Your task to perform on an android device: refresh tabs in the chrome app Image 0: 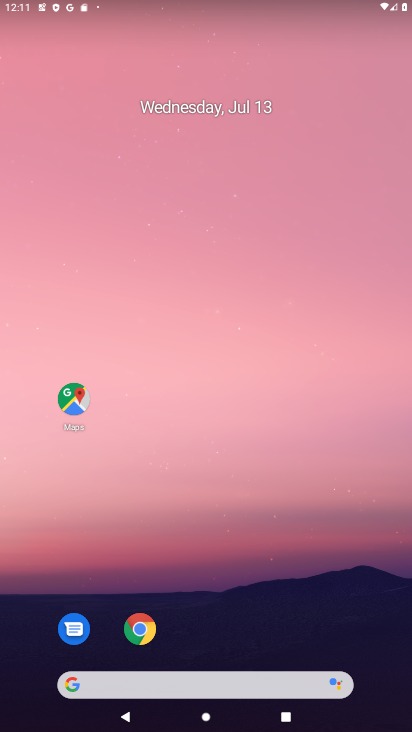
Step 0: drag from (214, 539) to (228, 276)
Your task to perform on an android device: refresh tabs in the chrome app Image 1: 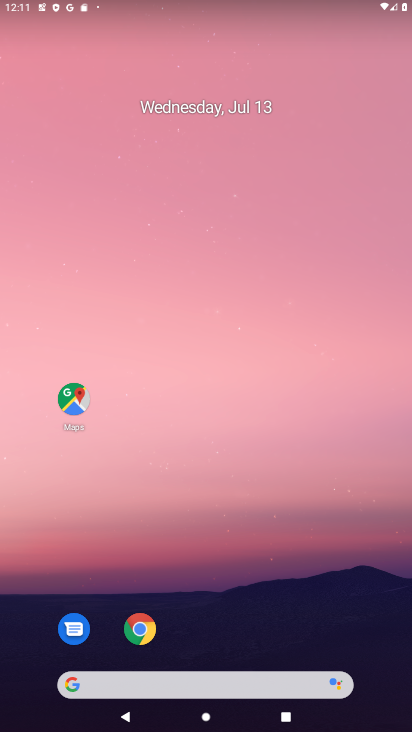
Step 1: drag from (244, 665) to (244, 376)
Your task to perform on an android device: refresh tabs in the chrome app Image 2: 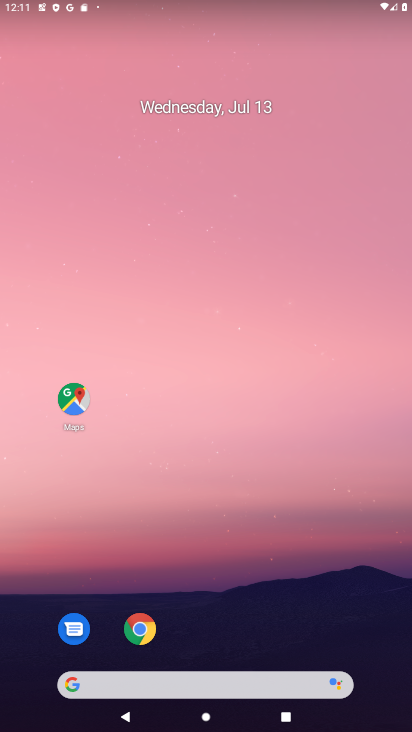
Step 2: drag from (157, 563) to (174, 277)
Your task to perform on an android device: refresh tabs in the chrome app Image 3: 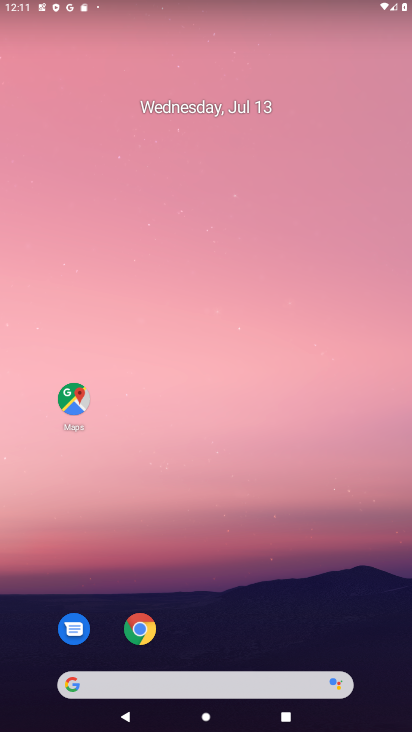
Step 3: drag from (195, 629) to (231, 284)
Your task to perform on an android device: refresh tabs in the chrome app Image 4: 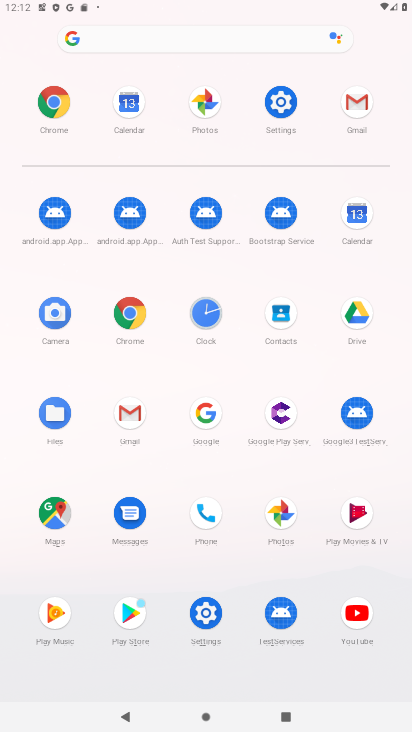
Step 4: click (123, 306)
Your task to perform on an android device: refresh tabs in the chrome app Image 5: 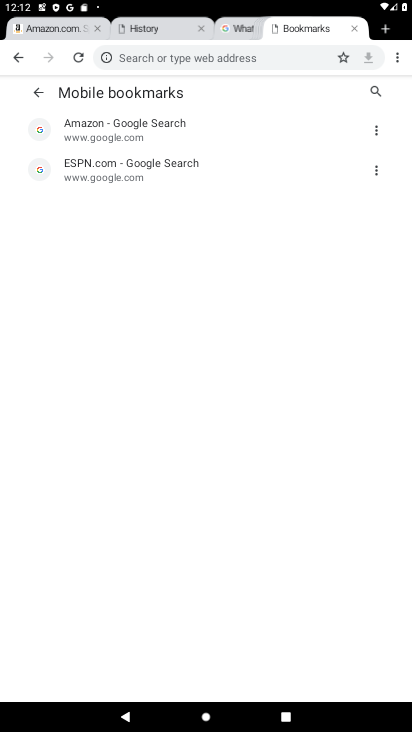
Step 5: click (405, 56)
Your task to perform on an android device: refresh tabs in the chrome app Image 6: 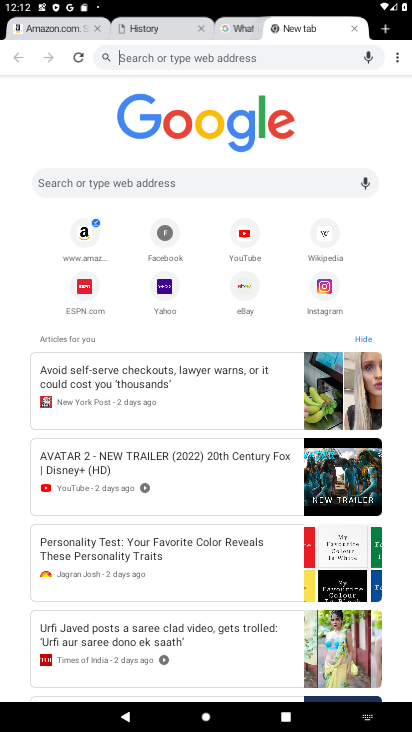
Step 6: click (399, 53)
Your task to perform on an android device: refresh tabs in the chrome app Image 7: 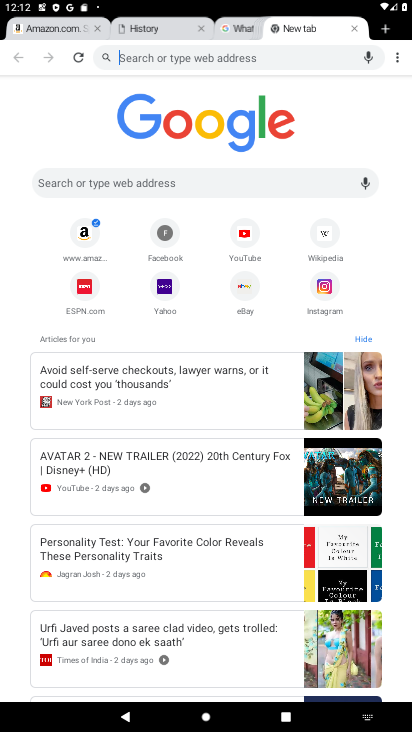
Step 7: click (76, 56)
Your task to perform on an android device: refresh tabs in the chrome app Image 8: 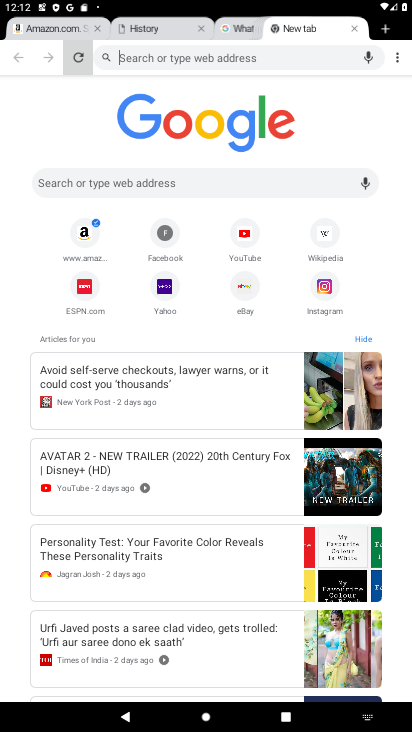
Step 8: click (76, 60)
Your task to perform on an android device: refresh tabs in the chrome app Image 9: 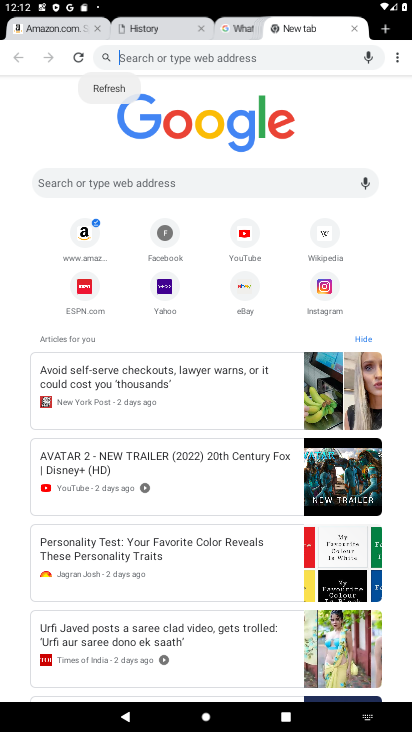
Step 9: task complete